Your task to perform on an android device: Open the Play Movies app and select the watchlist tab. Image 0: 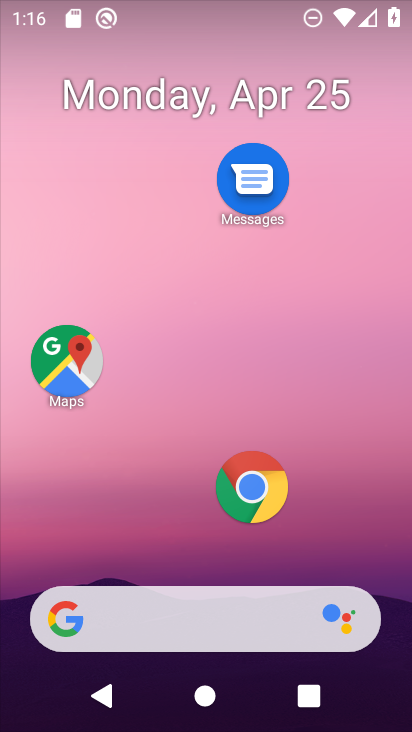
Step 0: drag from (236, 572) to (245, 89)
Your task to perform on an android device: Open the Play Movies app and select the watchlist tab. Image 1: 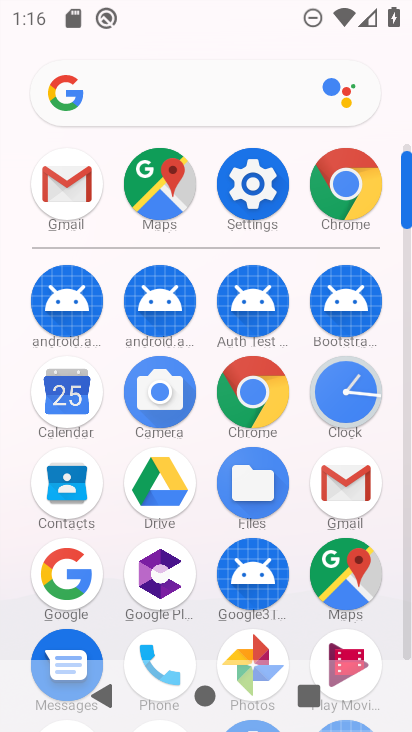
Step 1: click (345, 659)
Your task to perform on an android device: Open the Play Movies app and select the watchlist tab. Image 2: 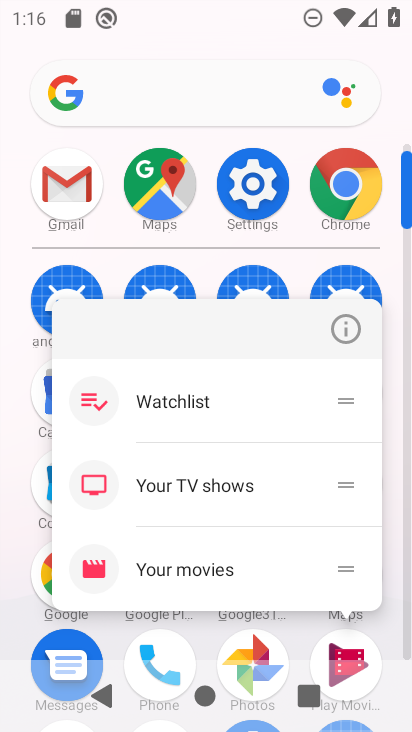
Step 2: click (325, 654)
Your task to perform on an android device: Open the Play Movies app and select the watchlist tab. Image 3: 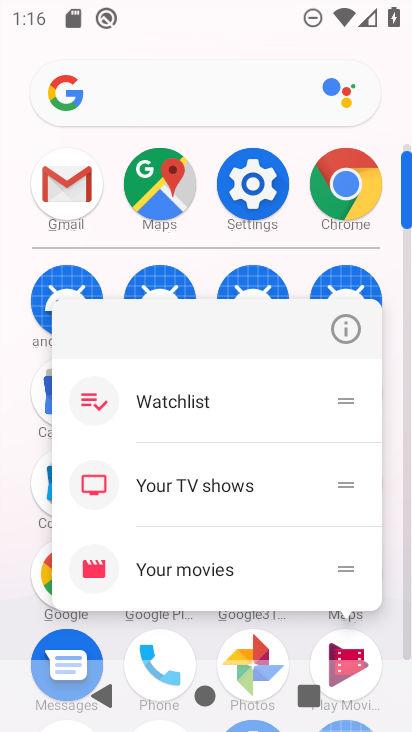
Step 3: click (338, 640)
Your task to perform on an android device: Open the Play Movies app and select the watchlist tab. Image 4: 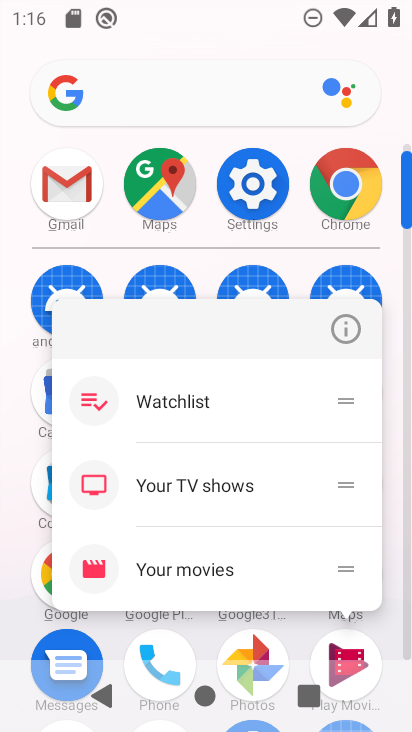
Step 4: click (338, 642)
Your task to perform on an android device: Open the Play Movies app and select the watchlist tab. Image 5: 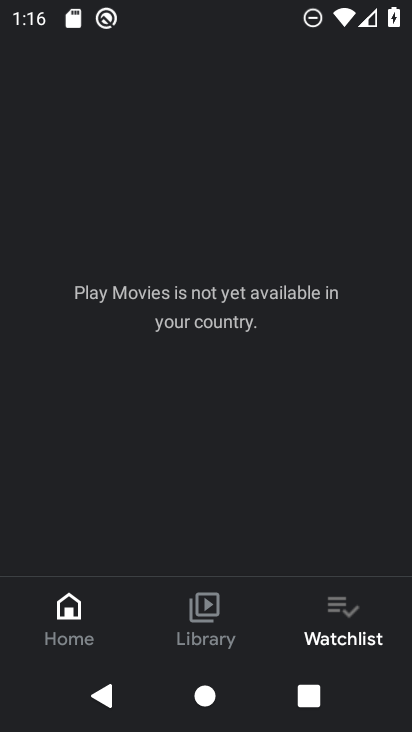
Step 5: click (340, 626)
Your task to perform on an android device: Open the Play Movies app and select the watchlist tab. Image 6: 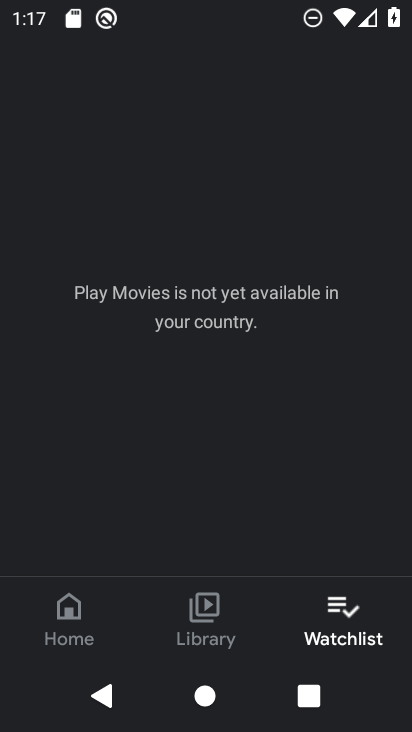
Step 6: task complete